Your task to perform on an android device: Show me popular videos on Youtube Image 0: 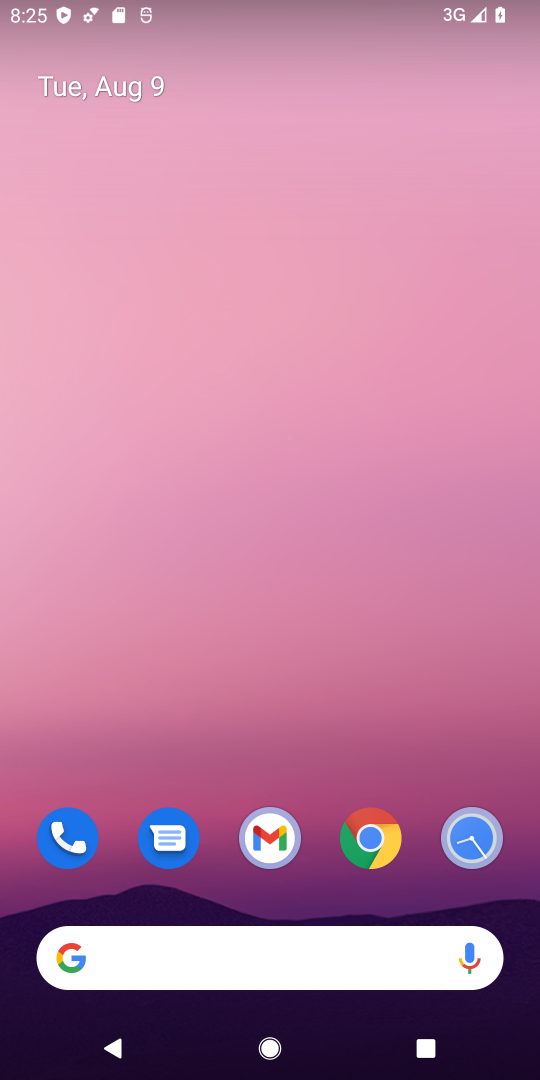
Step 0: drag from (300, 869) to (337, 279)
Your task to perform on an android device: Show me popular videos on Youtube Image 1: 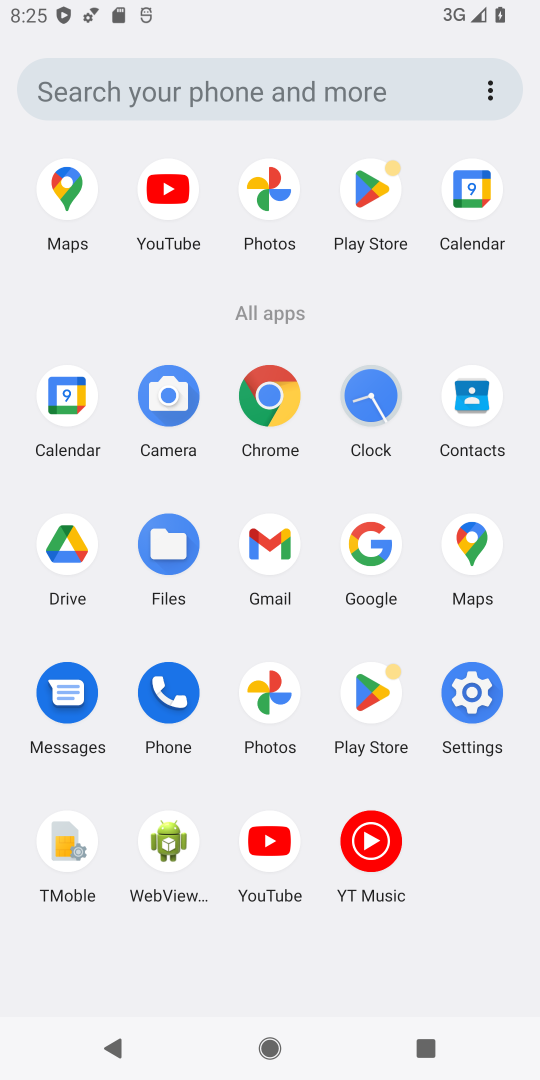
Step 1: click (276, 856)
Your task to perform on an android device: Show me popular videos on Youtube Image 2: 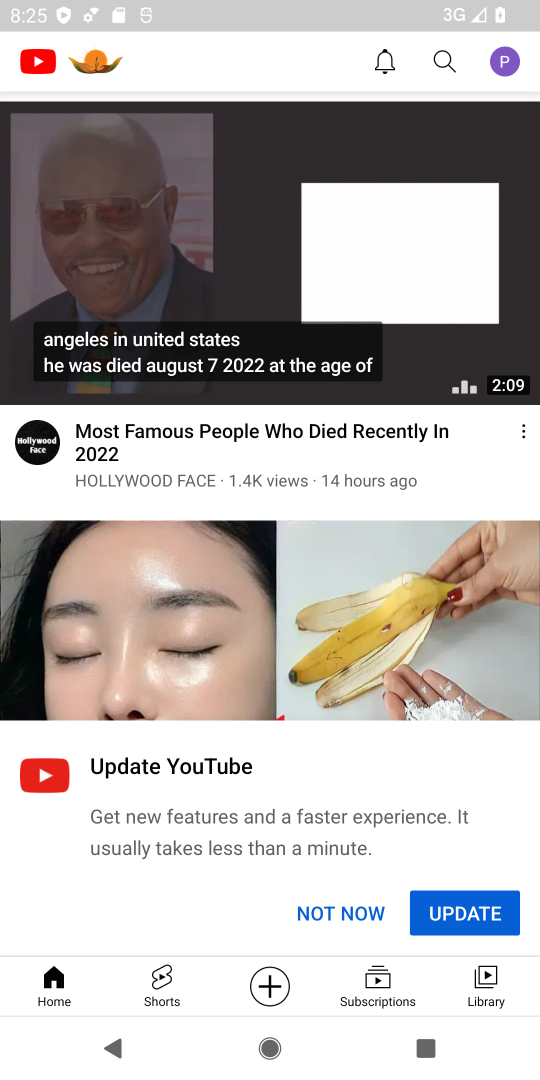
Step 2: drag from (265, 260) to (277, 608)
Your task to perform on an android device: Show me popular videos on Youtube Image 3: 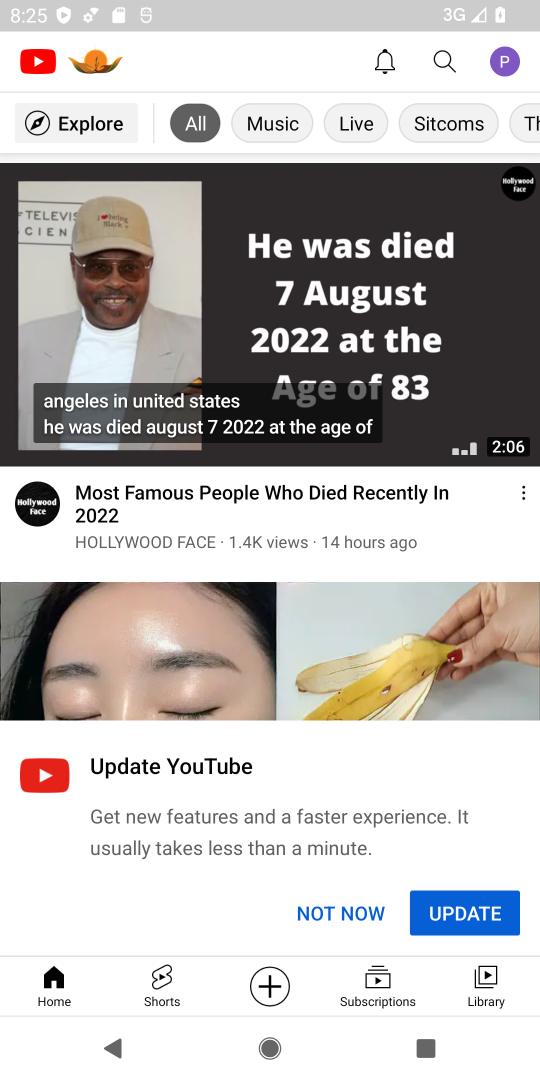
Step 3: click (69, 128)
Your task to perform on an android device: Show me popular videos on Youtube Image 4: 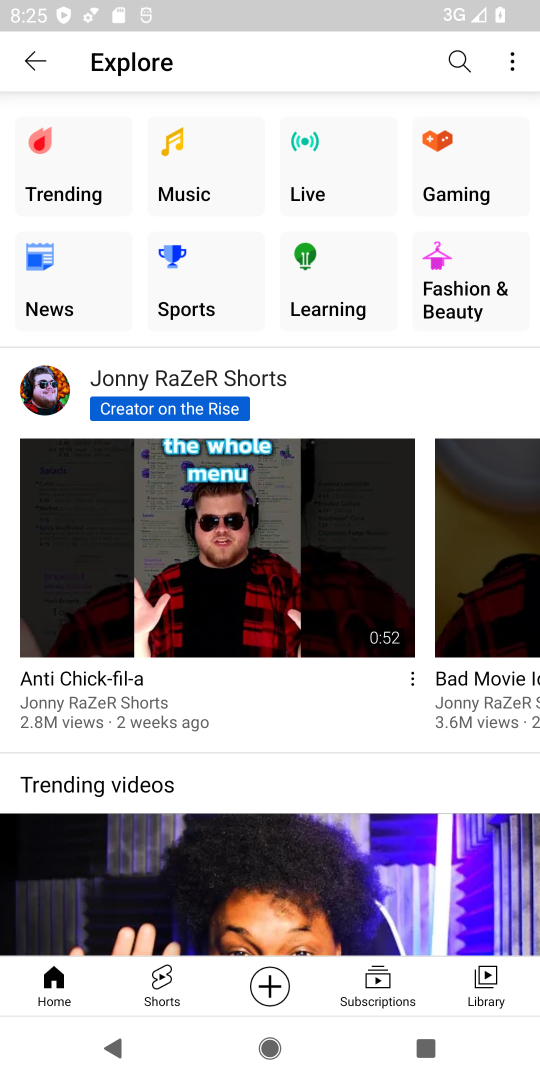
Step 4: click (67, 186)
Your task to perform on an android device: Show me popular videos on Youtube Image 5: 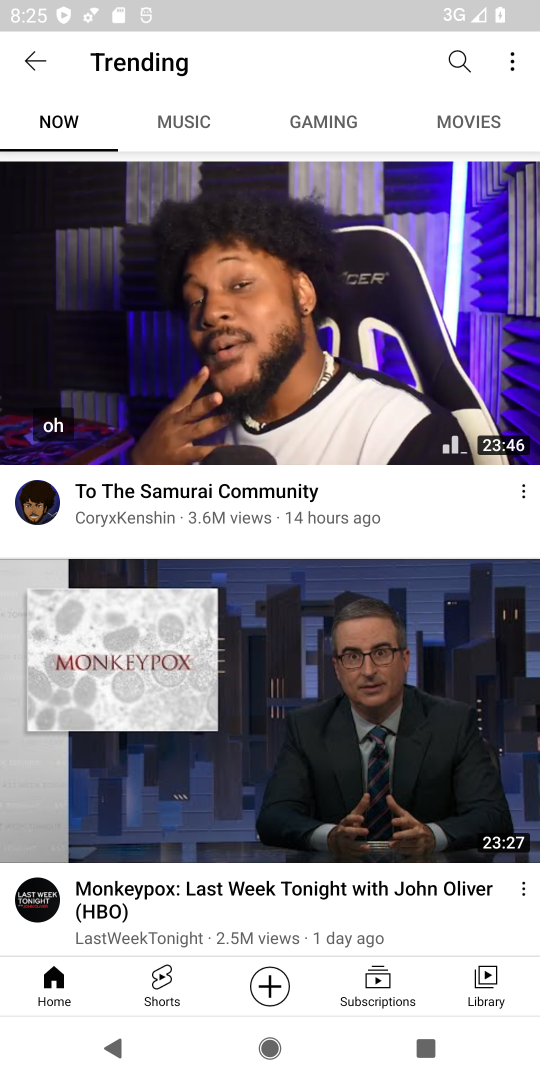
Step 5: task complete